Your task to perform on an android device: Search for sushi restaurants on Maps Image 0: 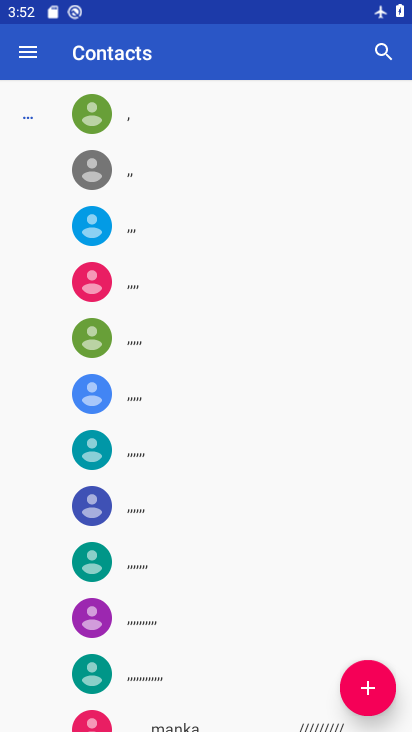
Step 0: press home button
Your task to perform on an android device: Search for sushi restaurants on Maps Image 1: 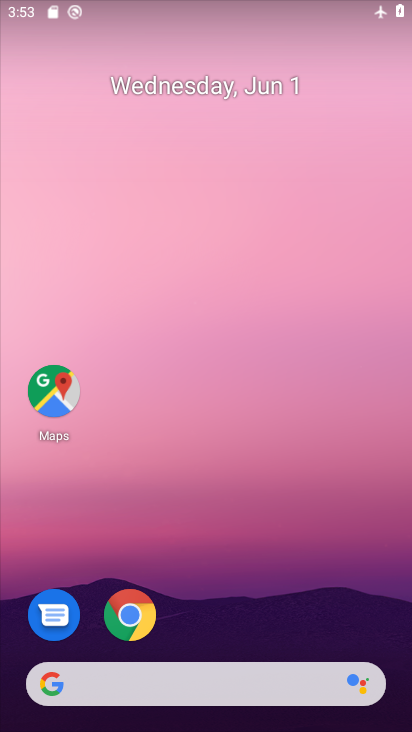
Step 1: click (59, 396)
Your task to perform on an android device: Search for sushi restaurants on Maps Image 2: 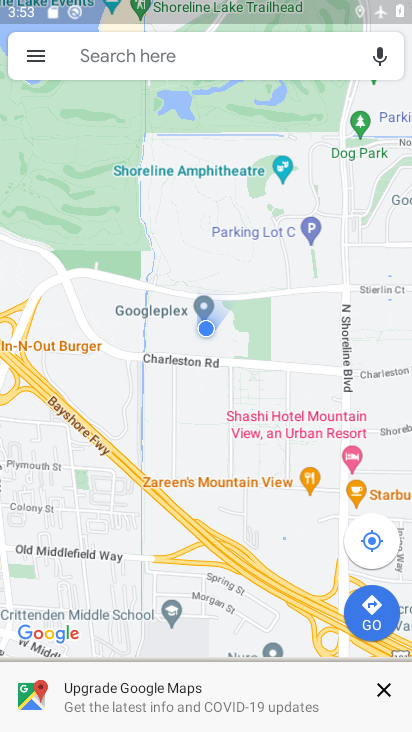
Step 2: click (260, 50)
Your task to perform on an android device: Search for sushi restaurants on Maps Image 3: 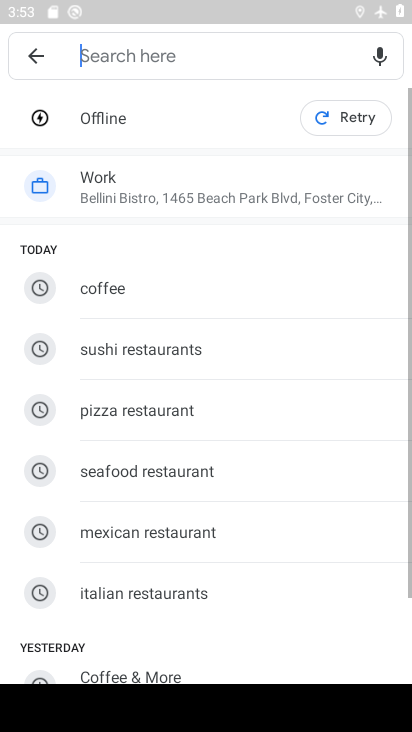
Step 3: click (192, 358)
Your task to perform on an android device: Search for sushi restaurants on Maps Image 4: 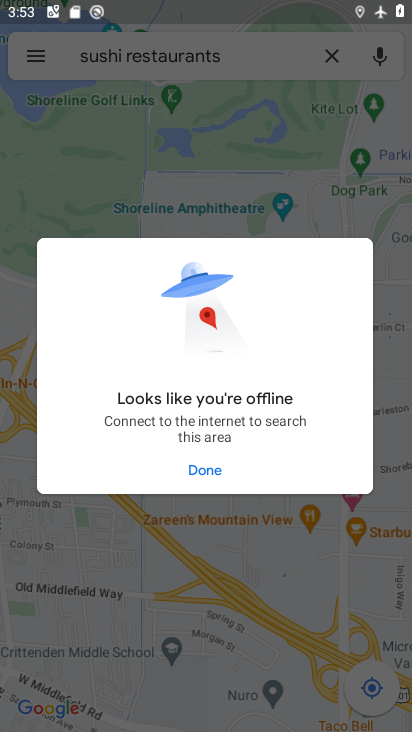
Step 4: task complete